Your task to perform on an android device: Go to Yahoo.com Image 0: 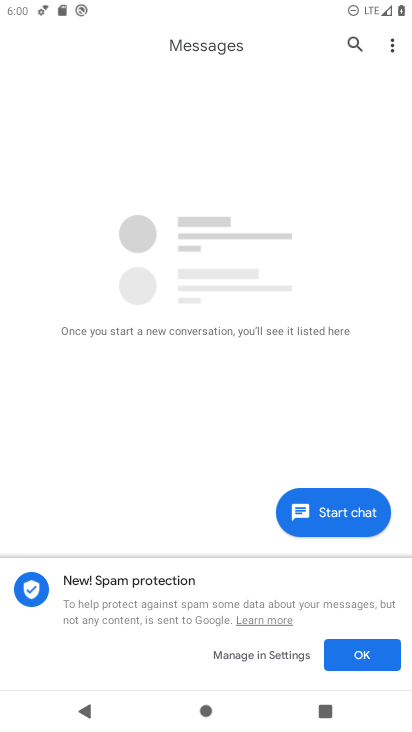
Step 0: press home button
Your task to perform on an android device: Go to Yahoo.com Image 1: 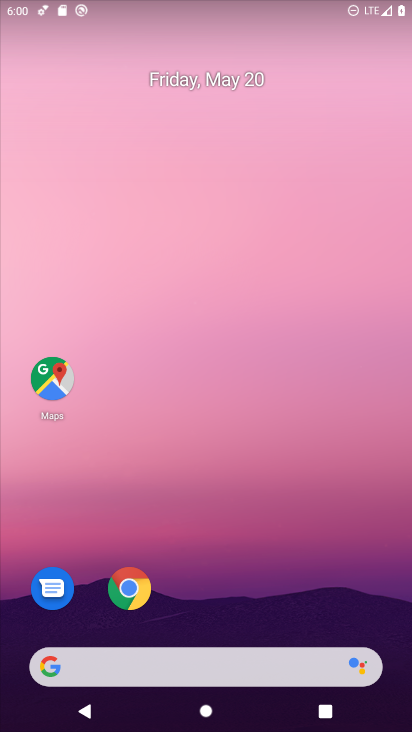
Step 1: click (119, 587)
Your task to perform on an android device: Go to Yahoo.com Image 2: 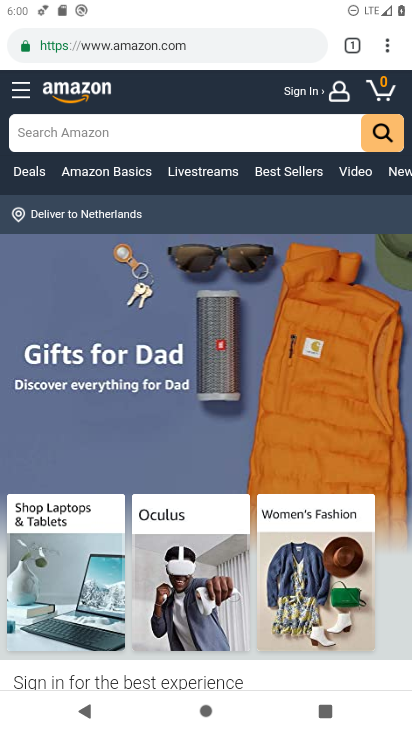
Step 2: click (190, 42)
Your task to perform on an android device: Go to Yahoo.com Image 3: 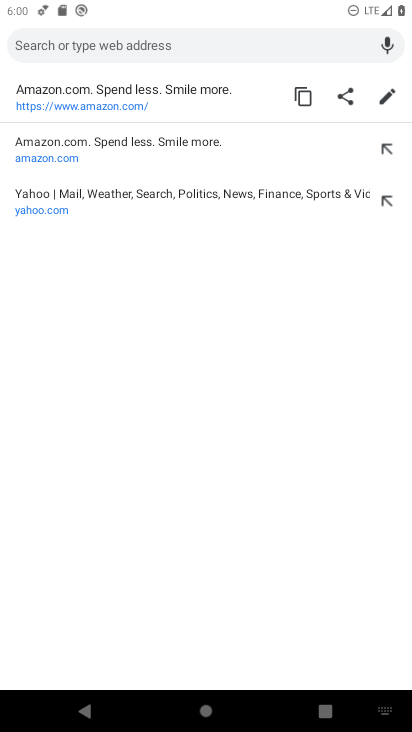
Step 3: click (93, 211)
Your task to perform on an android device: Go to Yahoo.com Image 4: 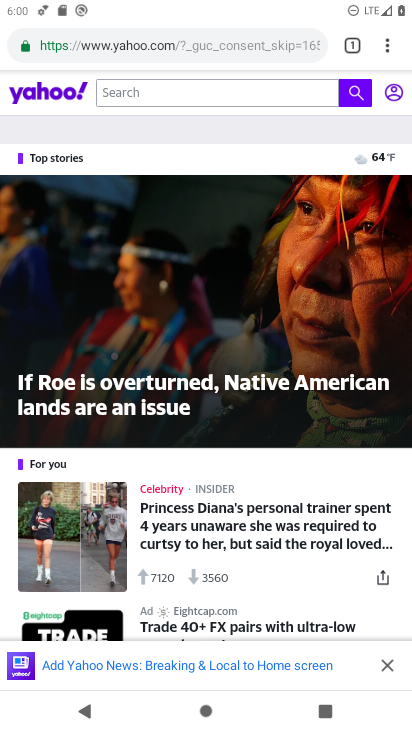
Step 4: task complete